Your task to perform on an android device: turn on showing notifications on the lock screen Image 0: 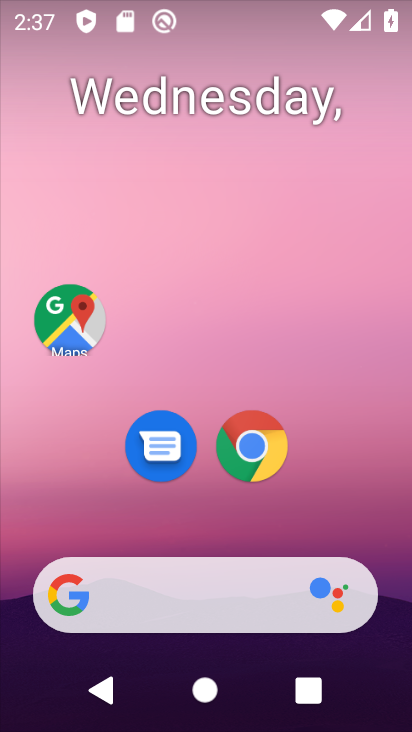
Step 0: drag from (364, 532) to (310, 77)
Your task to perform on an android device: turn on showing notifications on the lock screen Image 1: 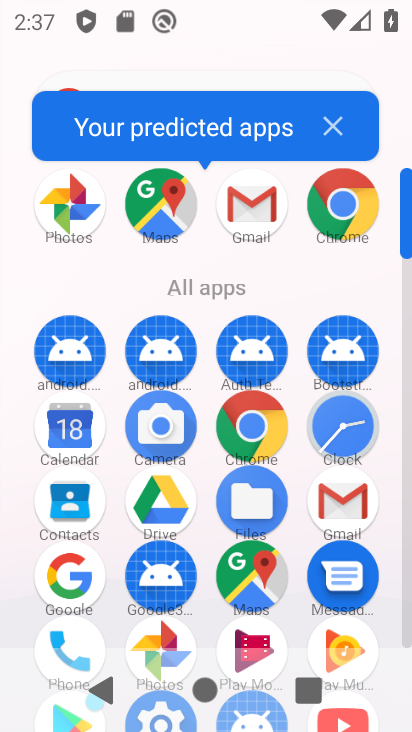
Step 1: drag from (204, 669) to (232, 339)
Your task to perform on an android device: turn on showing notifications on the lock screen Image 2: 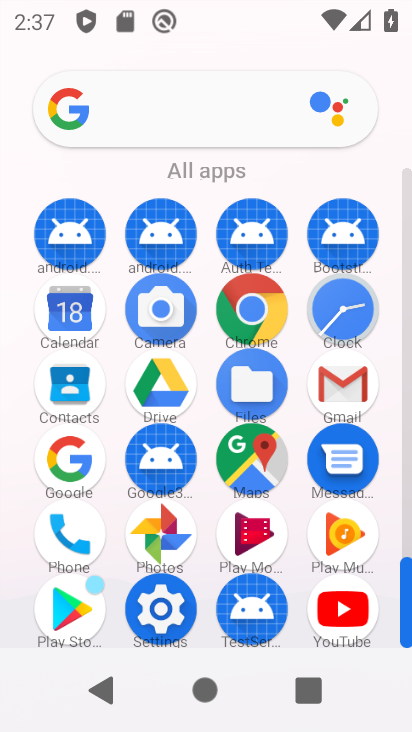
Step 2: click (159, 618)
Your task to perform on an android device: turn on showing notifications on the lock screen Image 3: 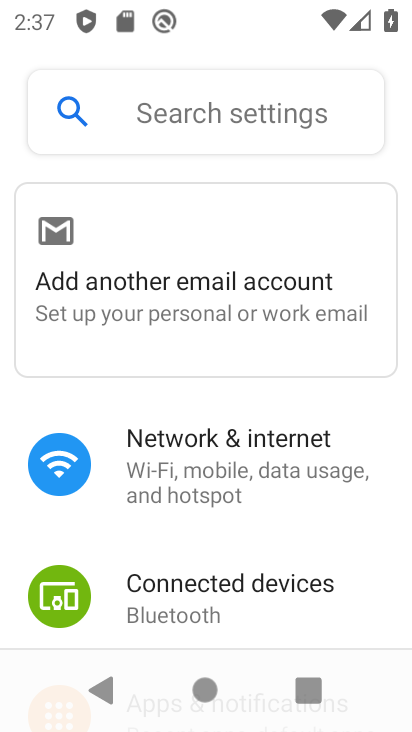
Step 3: drag from (254, 508) to (253, 230)
Your task to perform on an android device: turn on showing notifications on the lock screen Image 4: 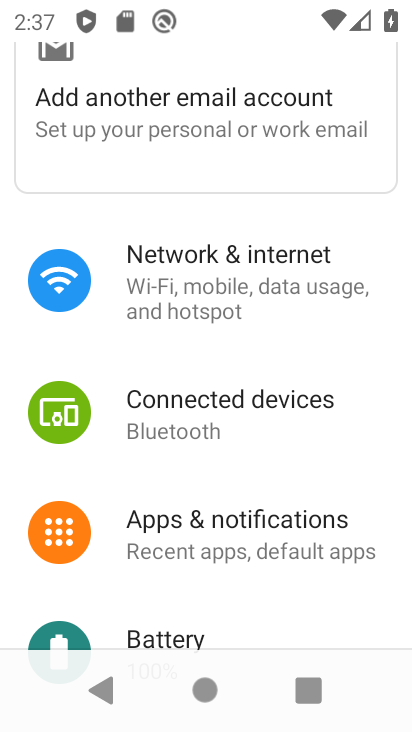
Step 4: click (269, 530)
Your task to perform on an android device: turn on showing notifications on the lock screen Image 5: 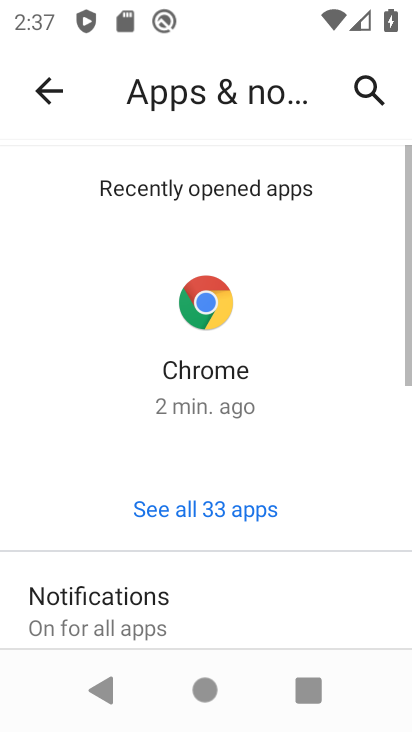
Step 5: drag from (269, 530) to (252, 165)
Your task to perform on an android device: turn on showing notifications on the lock screen Image 6: 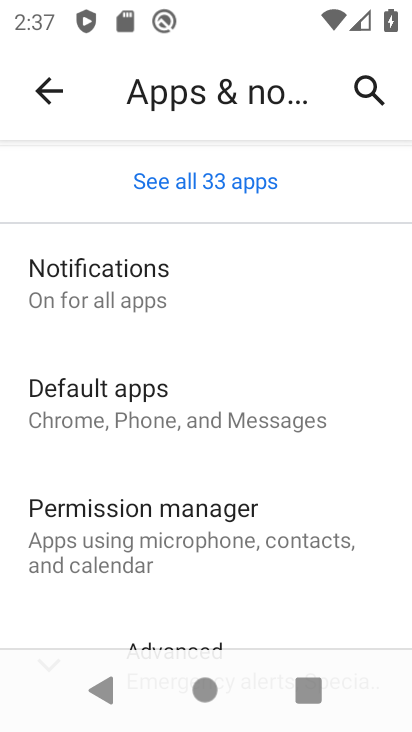
Step 6: click (170, 309)
Your task to perform on an android device: turn on showing notifications on the lock screen Image 7: 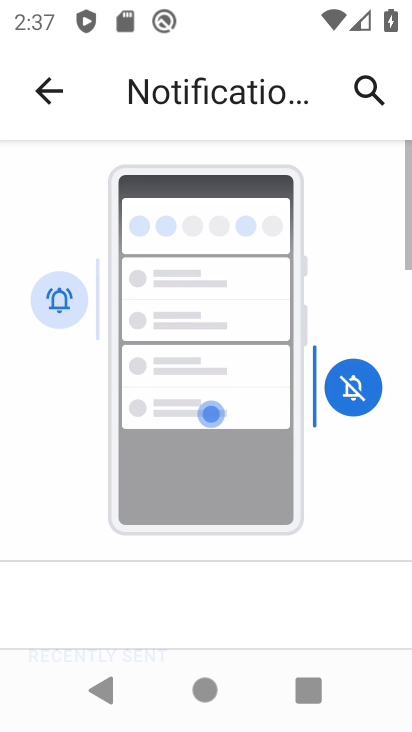
Step 7: drag from (230, 538) to (256, 128)
Your task to perform on an android device: turn on showing notifications on the lock screen Image 8: 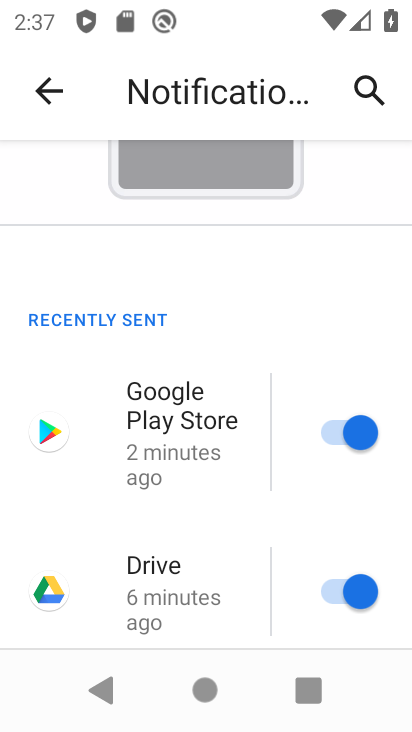
Step 8: drag from (194, 547) to (202, 169)
Your task to perform on an android device: turn on showing notifications on the lock screen Image 9: 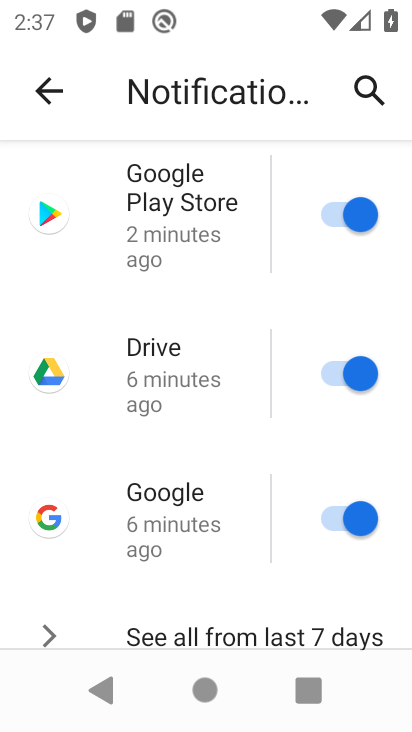
Step 9: drag from (245, 560) to (249, 200)
Your task to perform on an android device: turn on showing notifications on the lock screen Image 10: 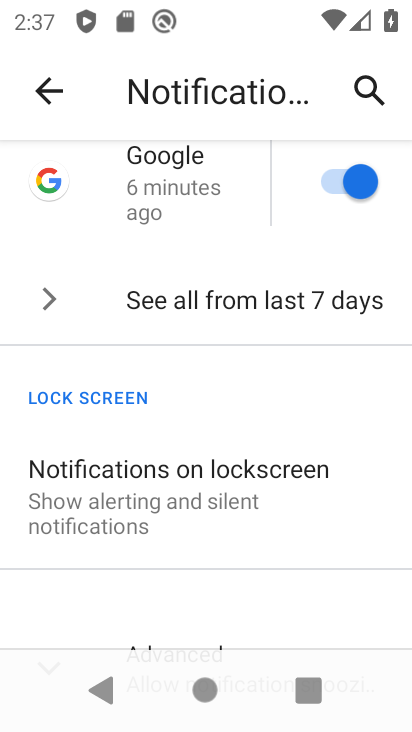
Step 10: click (215, 512)
Your task to perform on an android device: turn on showing notifications on the lock screen Image 11: 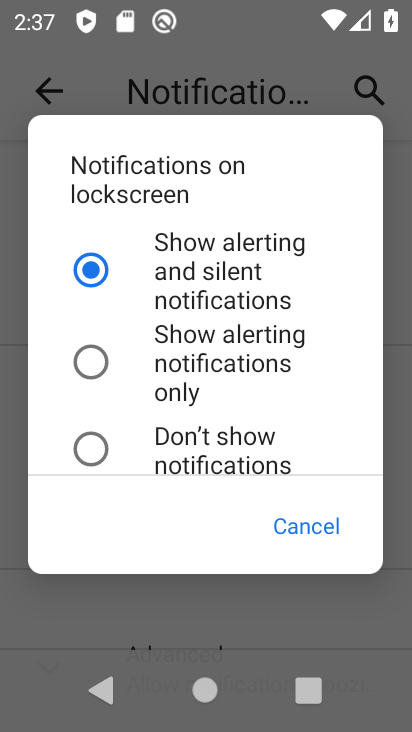
Step 11: task complete